Your task to perform on an android device: Go to Yahoo.com Image 0: 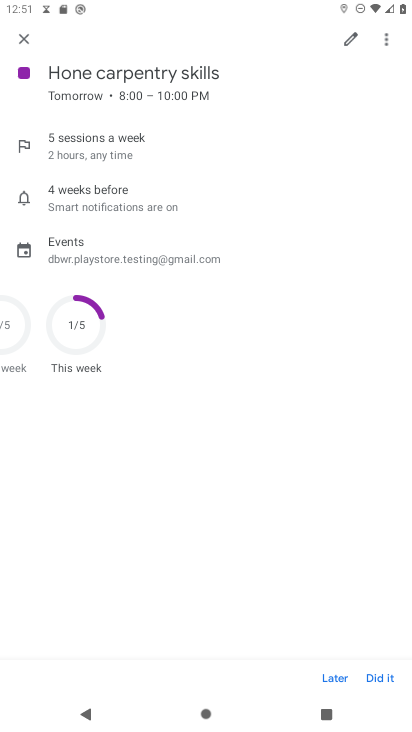
Step 0: press home button
Your task to perform on an android device: Go to Yahoo.com Image 1: 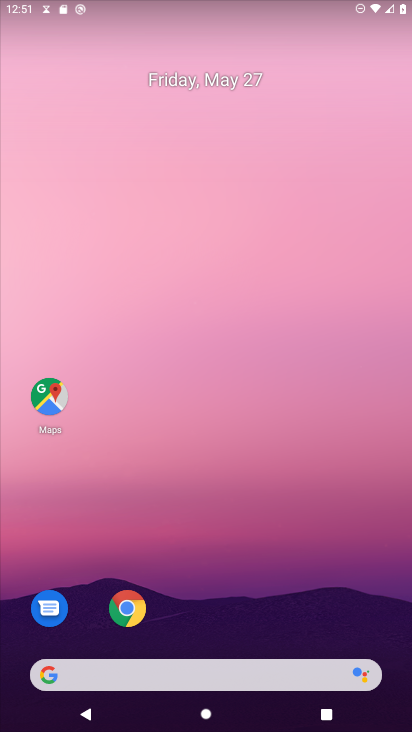
Step 1: click (131, 615)
Your task to perform on an android device: Go to Yahoo.com Image 2: 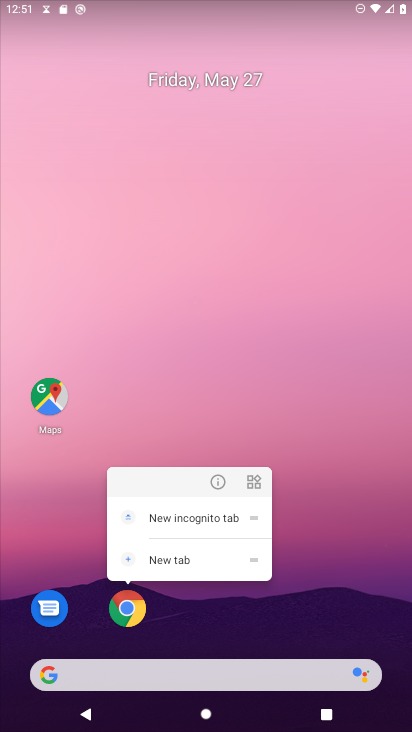
Step 2: click (124, 617)
Your task to perform on an android device: Go to Yahoo.com Image 3: 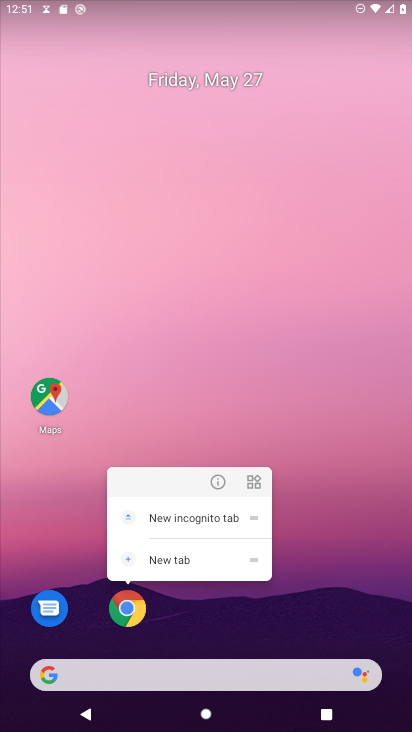
Step 3: click (120, 609)
Your task to perform on an android device: Go to Yahoo.com Image 4: 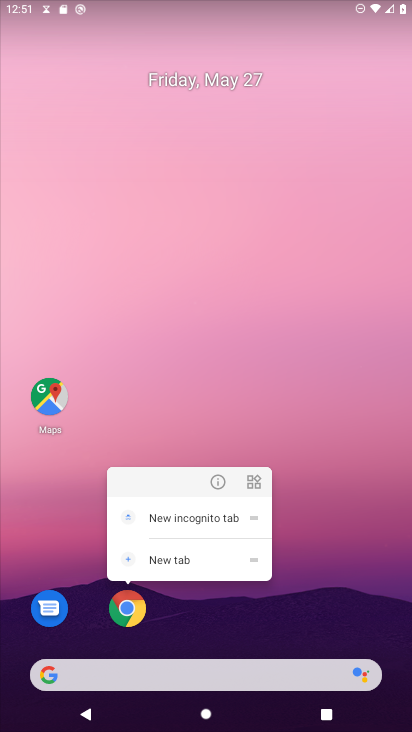
Step 4: click (133, 607)
Your task to perform on an android device: Go to Yahoo.com Image 5: 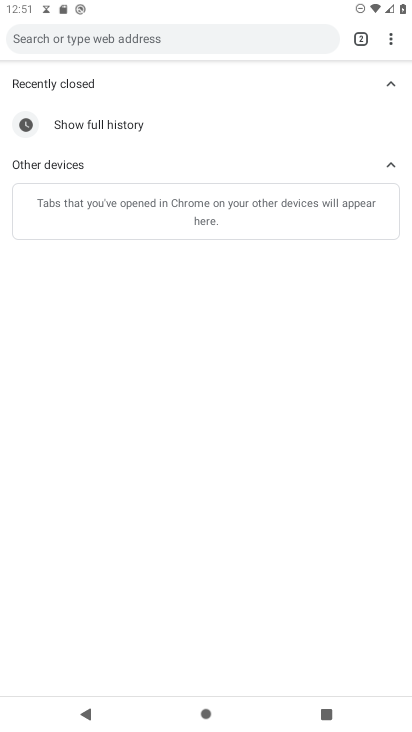
Step 5: drag from (389, 38) to (282, 86)
Your task to perform on an android device: Go to Yahoo.com Image 6: 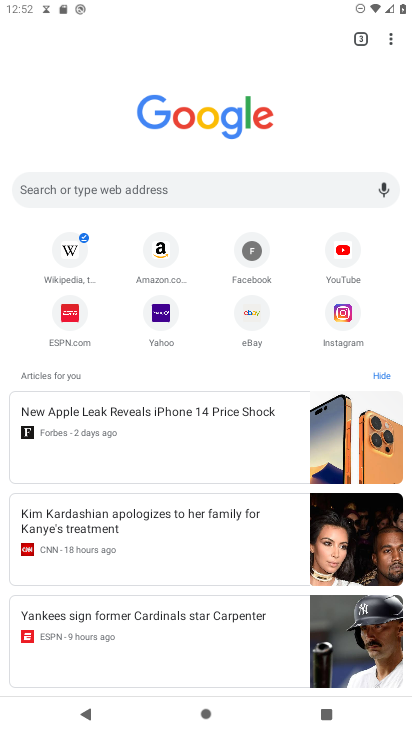
Step 6: click (162, 320)
Your task to perform on an android device: Go to Yahoo.com Image 7: 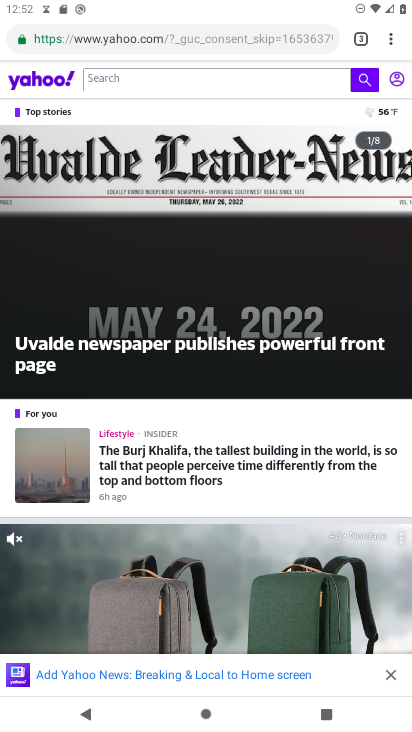
Step 7: task complete